Your task to perform on an android device: star an email in the gmail app Image 0: 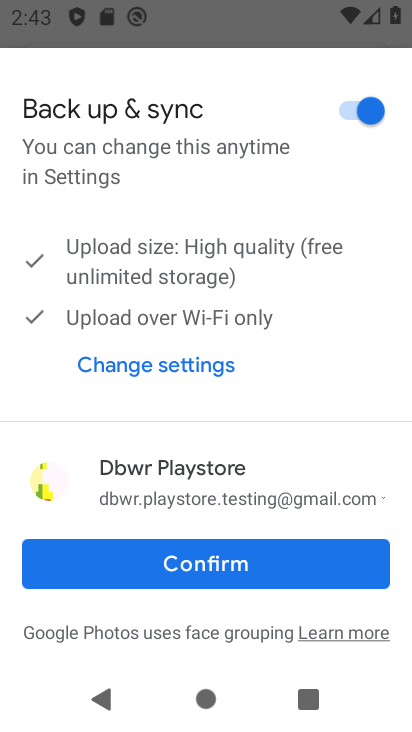
Step 0: press home button
Your task to perform on an android device: star an email in the gmail app Image 1: 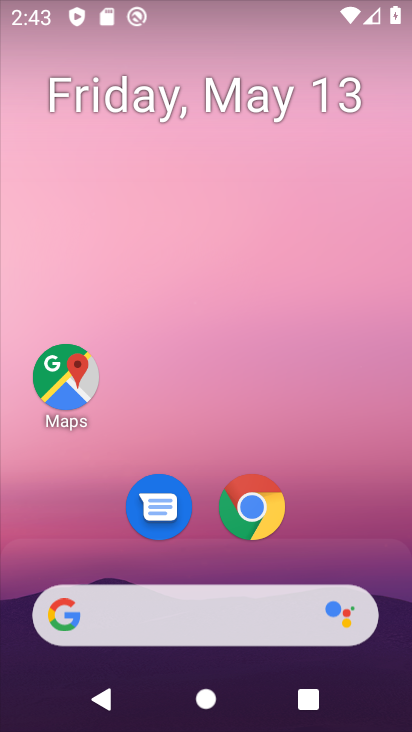
Step 1: drag from (288, 288) to (320, 19)
Your task to perform on an android device: star an email in the gmail app Image 2: 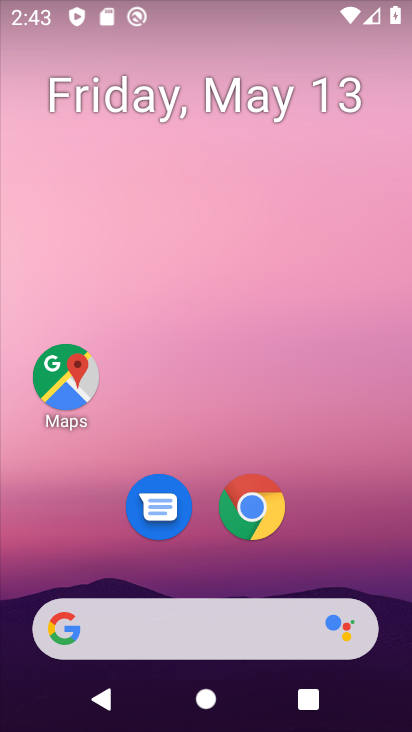
Step 2: drag from (313, 563) to (318, 11)
Your task to perform on an android device: star an email in the gmail app Image 3: 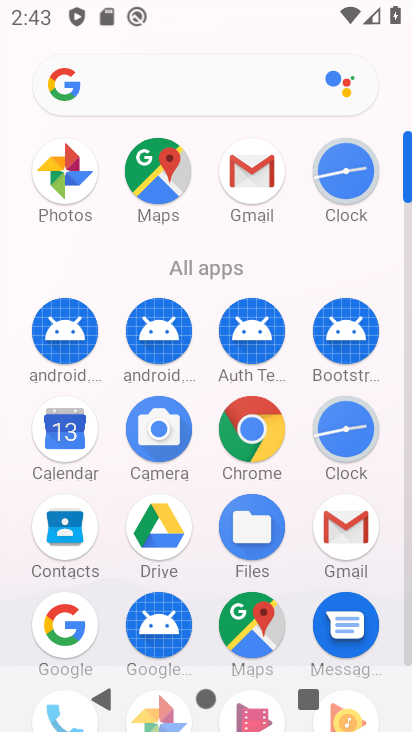
Step 3: click (265, 173)
Your task to perform on an android device: star an email in the gmail app Image 4: 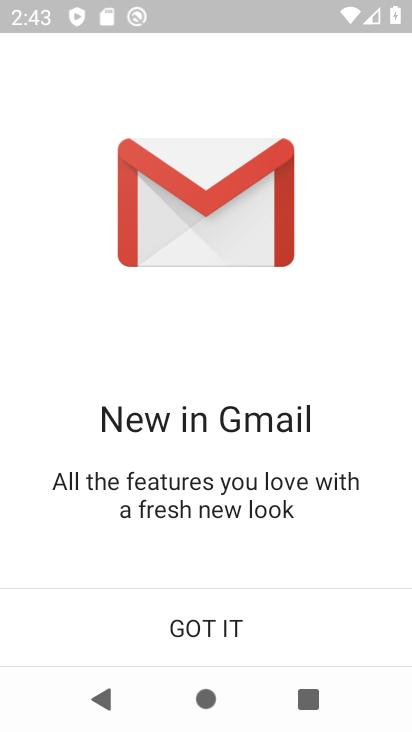
Step 4: click (208, 636)
Your task to perform on an android device: star an email in the gmail app Image 5: 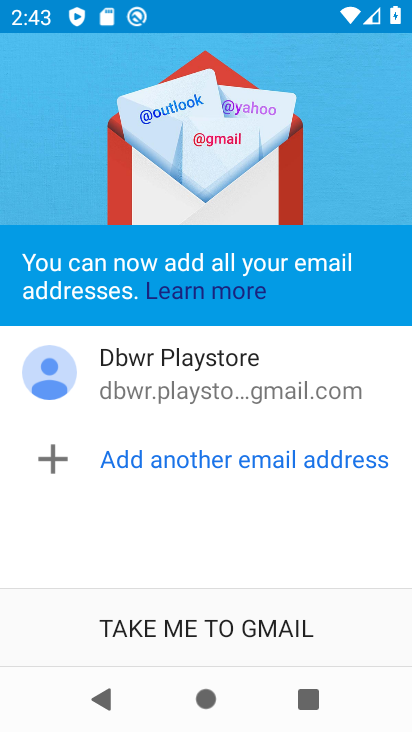
Step 5: click (179, 639)
Your task to perform on an android device: star an email in the gmail app Image 6: 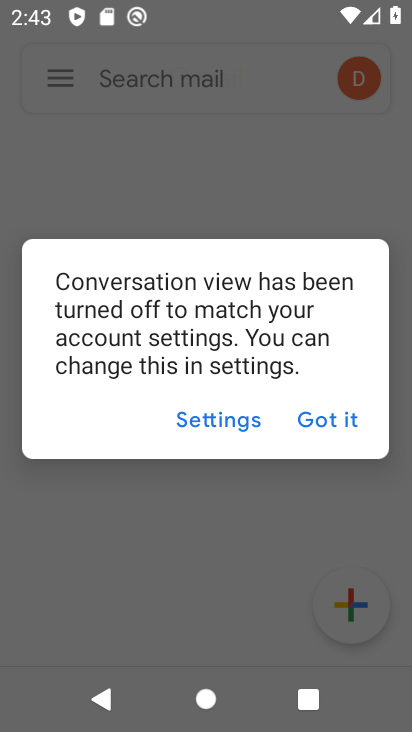
Step 6: click (315, 407)
Your task to perform on an android device: star an email in the gmail app Image 7: 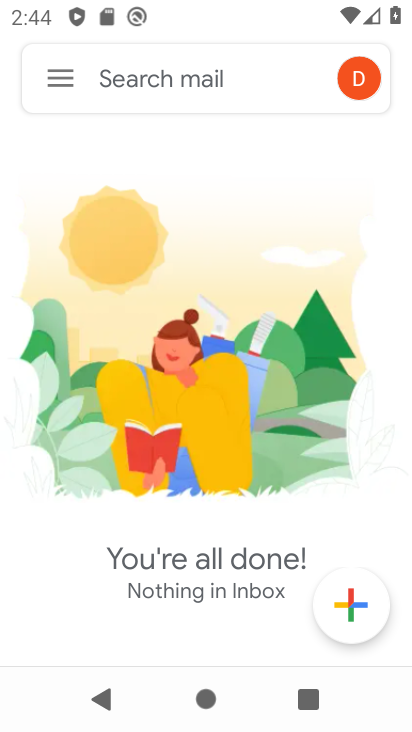
Step 7: click (49, 75)
Your task to perform on an android device: star an email in the gmail app Image 8: 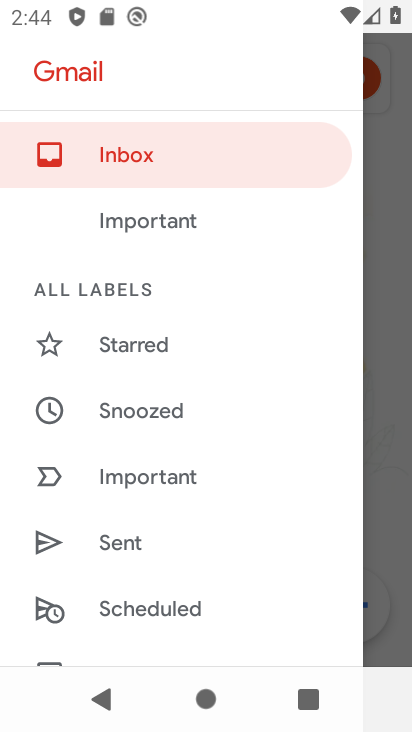
Step 8: drag from (190, 549) to (190, 223)
Your task to perform on an android device: star an email in the gmail app Image 9: 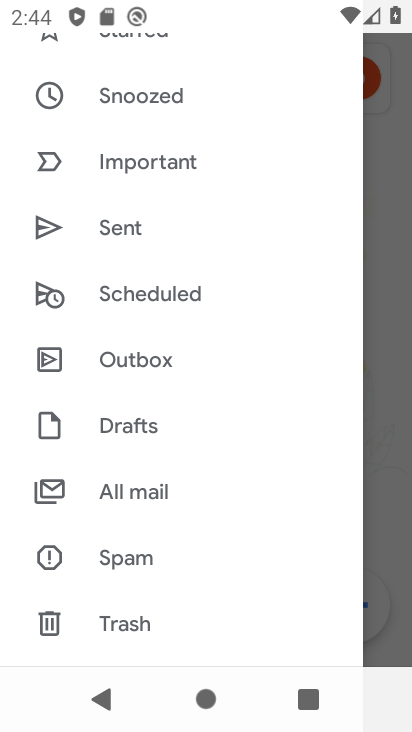
Step 9: click (169, 489)
Your task to perform on an android device: star an email in the gmail app Image 10: 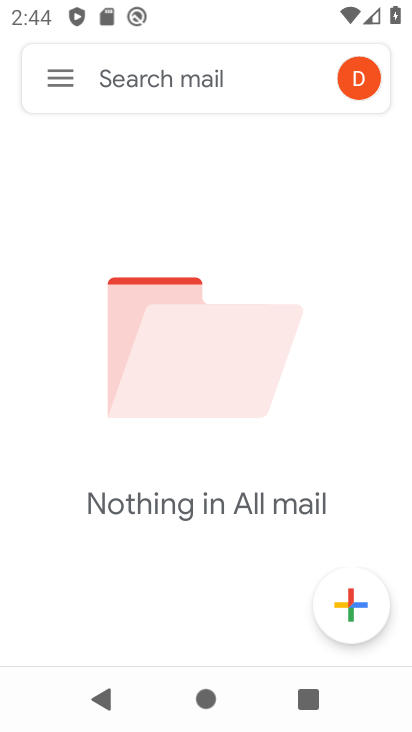
Step 10: task complete